Your task to perform on an android device: set an alarm Image 0: 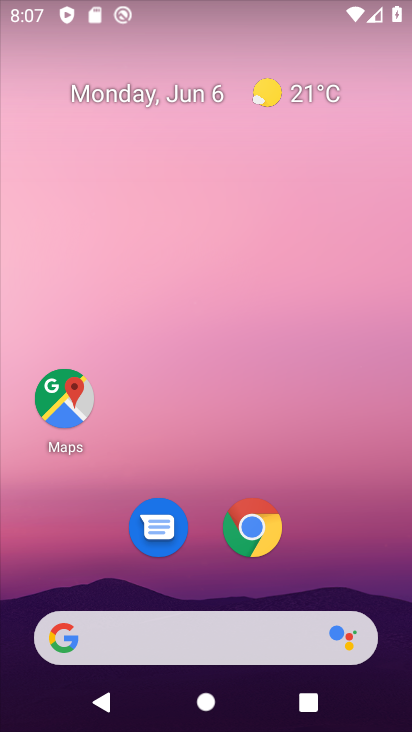
Step 0: drag from (192, 587) to (227, 20)
Your task to perform on an android device: set an alarm Image 1: 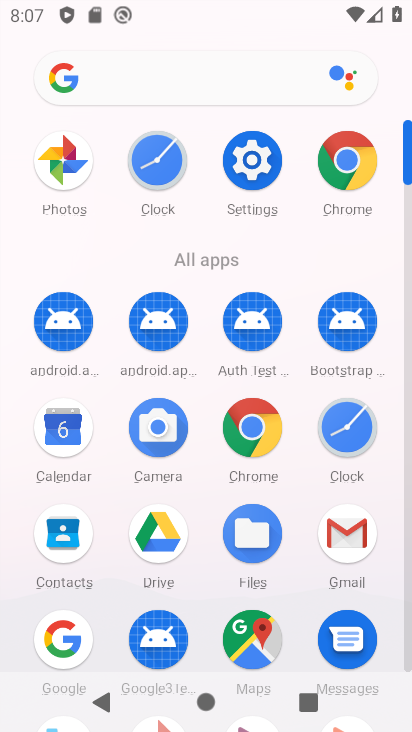
Step 1: click (162, 145)
Your task to perform on an android device: set an alarm Image 2: 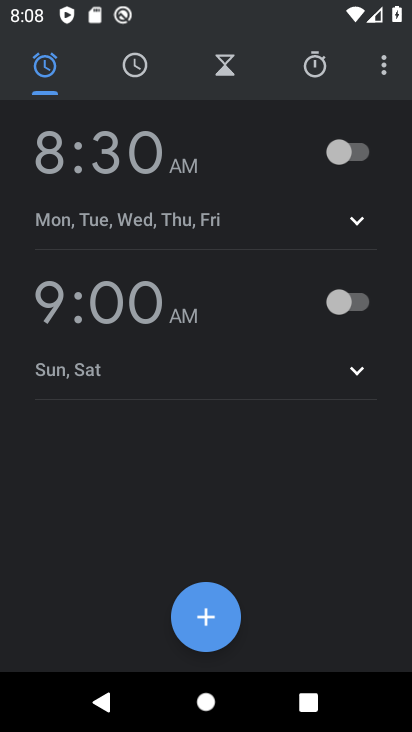
Step 2: click (336, 150)
Your task to perform on an android device: set an alarm Image 3: 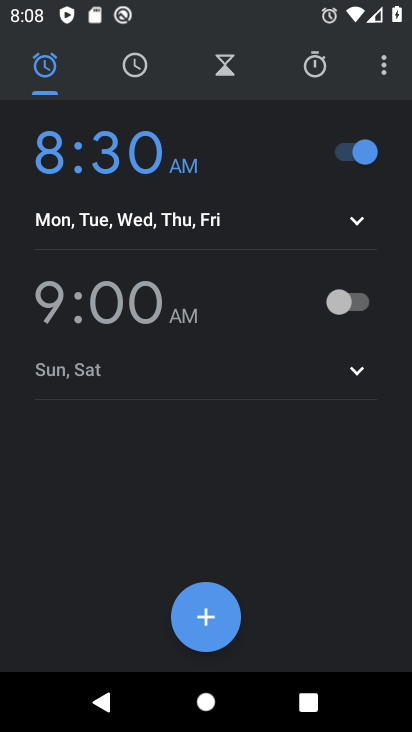
Step 3: task complete